Your task to perform on an android device: change timer sound Image 0: 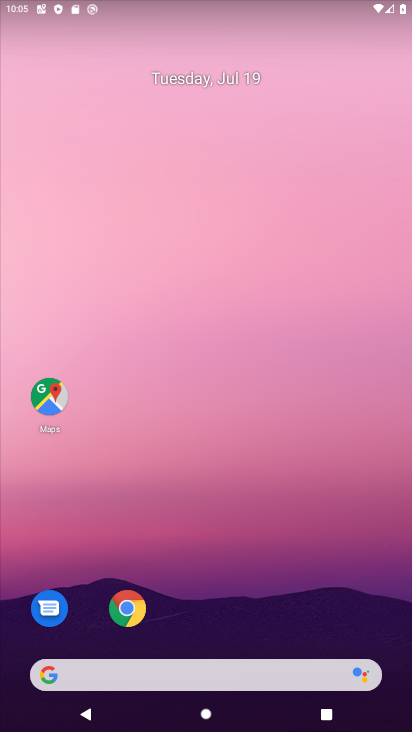
Step 0: drag from (246, 633) to (164, 139)
Your task to perform on an android device: change timer sound Image 1: 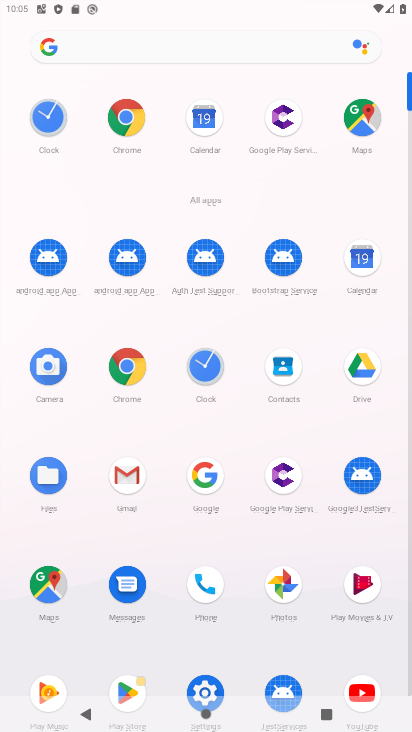
Step 1: click (205, 370)
Your task to perform on an android device: change timer sound Image 2: 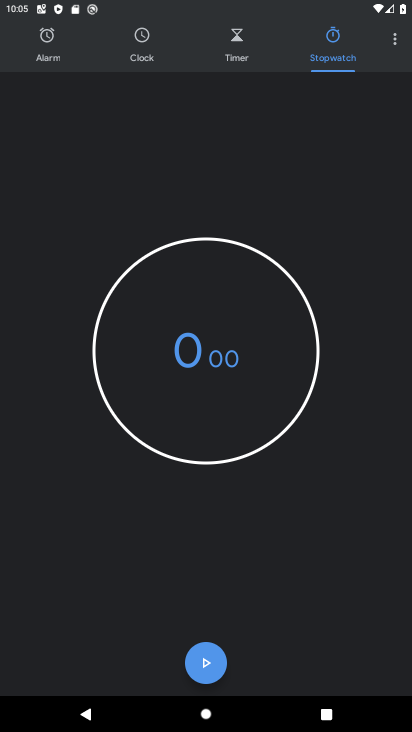
Step 2: click (232, 61)
Your task to perform on an android device: change timer sound Image 3: 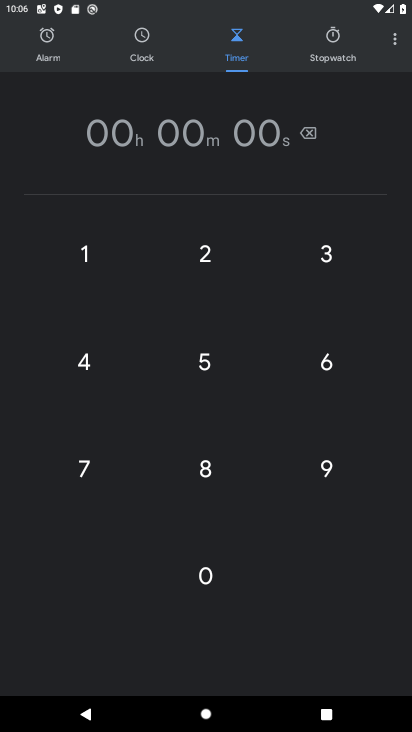
Step 3: click (216, 241)
Your task to perform on an android device: change timer sound Image 4: 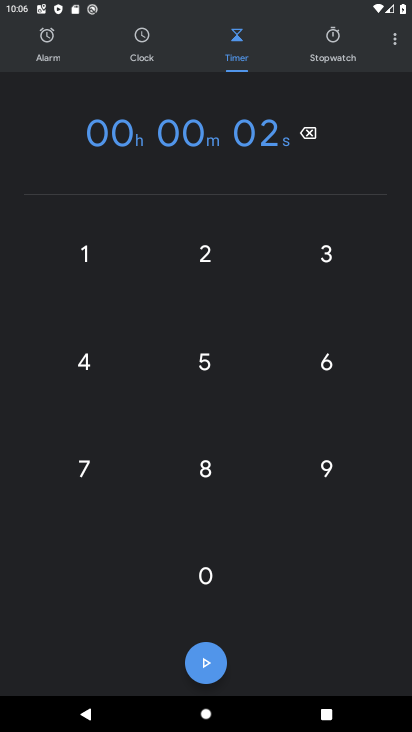
Step 4: click (207, 331)
Your task to perform on an android device: change timer sound Image 5: 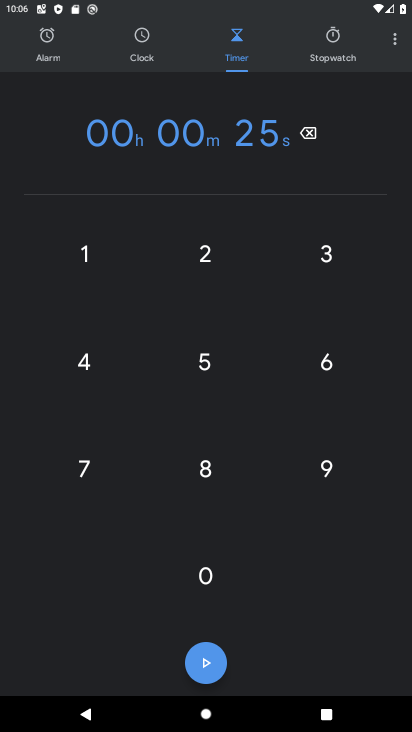
Step 5: click (389, 38)
Your task to perform on an android device: change timer sound Image 6: 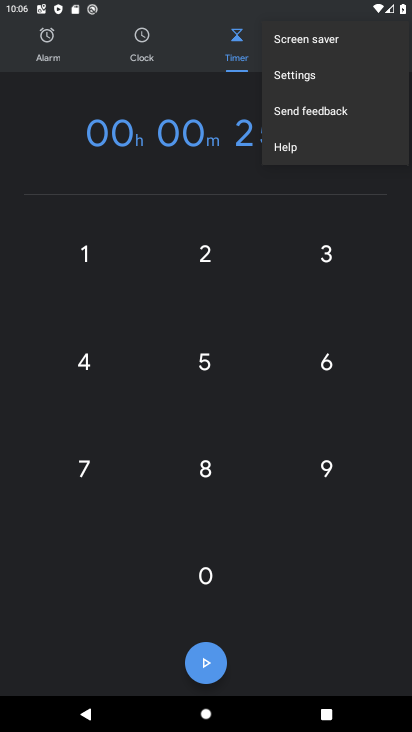
Step 6: click (320, 70)
Your task to perform on an android device: change timer sound Image 7: 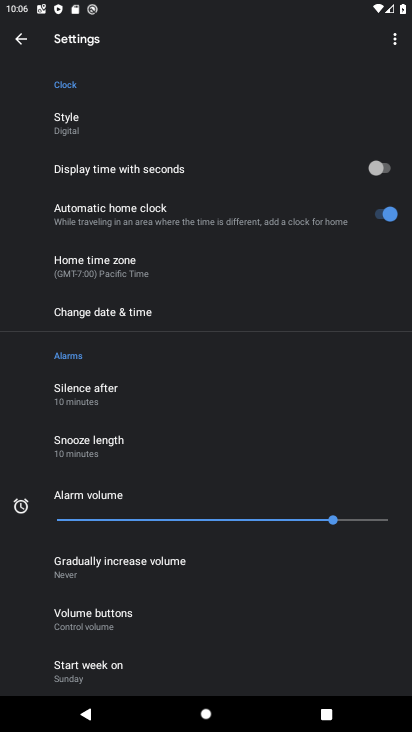
Step 7: drag from (146, 405) to (115, 143)
Your task to perform on an android device: change timer sound Image 8: 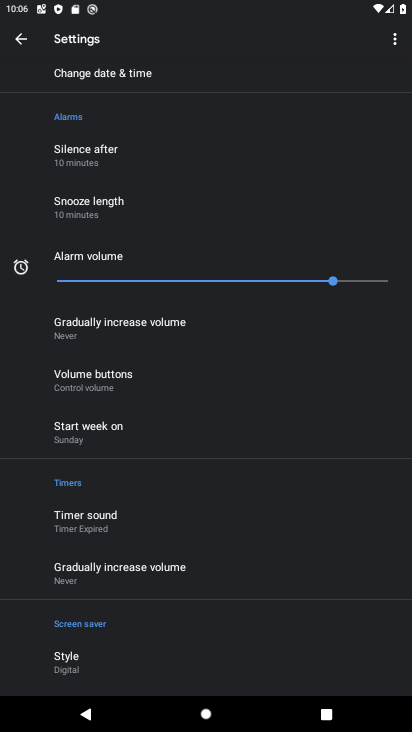
Step 8: click (112, 517)
Your task to perform on an android device: change timer sound Image 9: 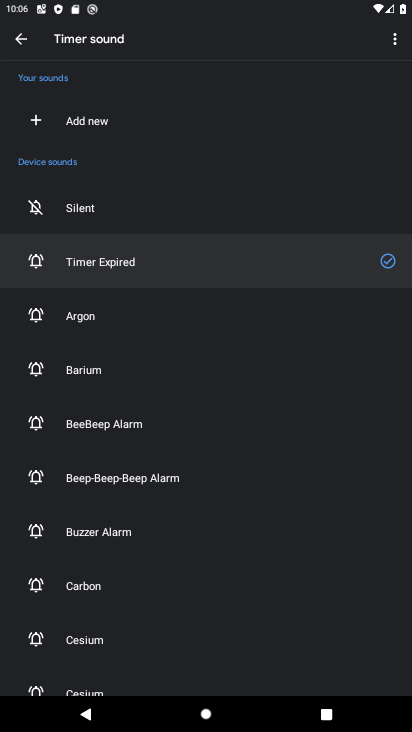
Step 9: click (92, 312)
Your task to perform on an android device: change timer sound Image 10: 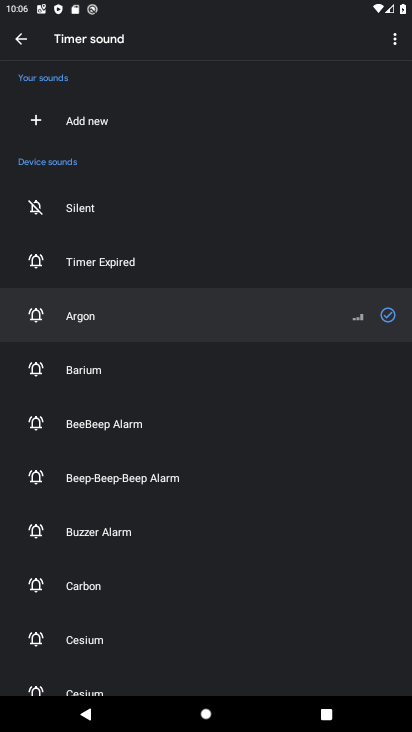
Step 10: task complete